Your task to perform on an android device: toggle translation in the chrome app Image 0: 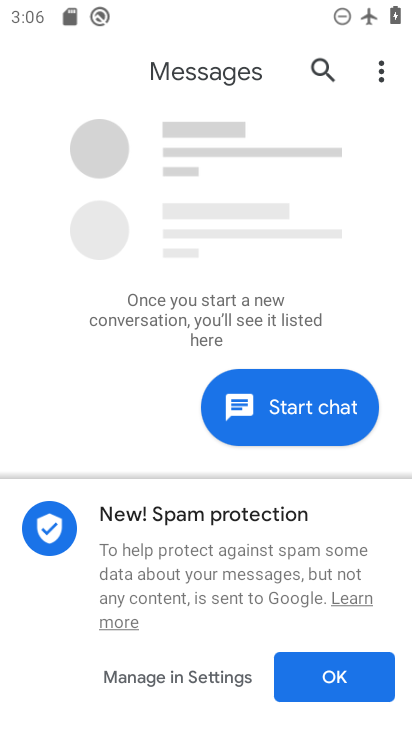
Step 0: press home button
Your task to perform on an android device: toggle translation in the chrome app Image 1: 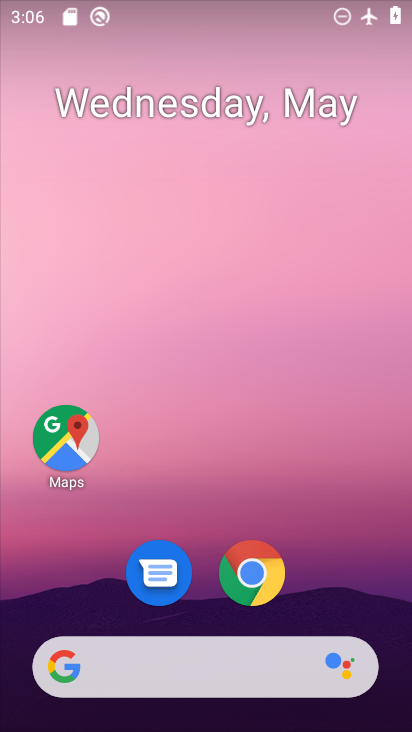
Step 1: click (256, 569)
Your task to perform on an android device: toggle translation in the chrome app Image 2: 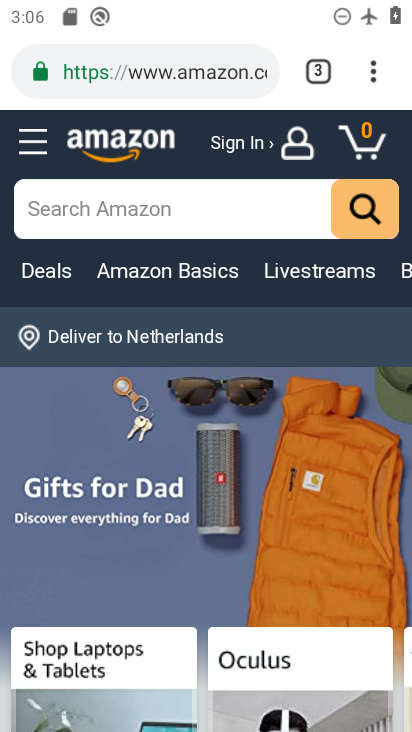
Step 2: click (381, 74)
Your task to perform on an android device: toggle translation in the chrome app Image 3: 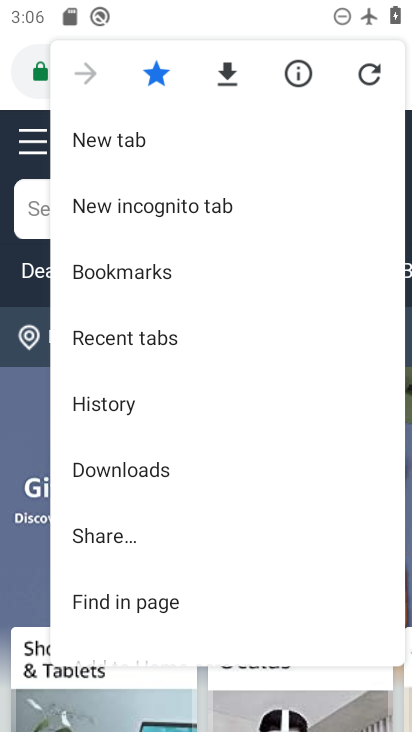
Step 3: drag from (231, 569) to (244, 266)
Your task to perform on an android device: toggle translation in the chrome app Image 4: 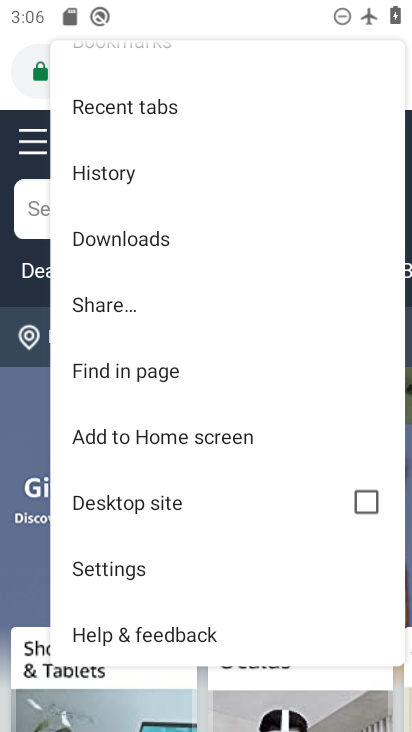
Step 4: click (173, 572)
Your task to perform on an android device: toggle translation in the chrome app Image 5: 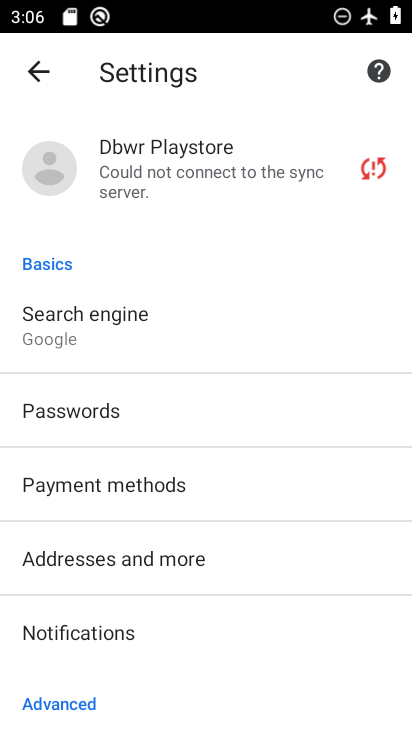
Step 5: drag from (179, 690) to (210, 329)
Your task to perform on an android device: toggle translation in the chrome app Image 6: 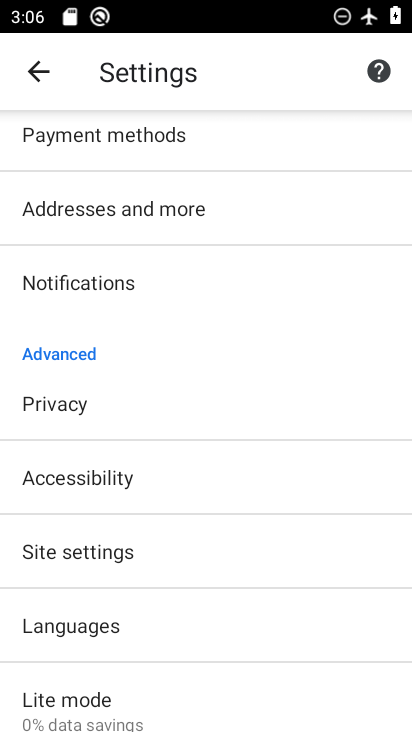
Step 6: click (117, 619)
Your task to perform on an android device: toggle translation in the chrome app Image 7: 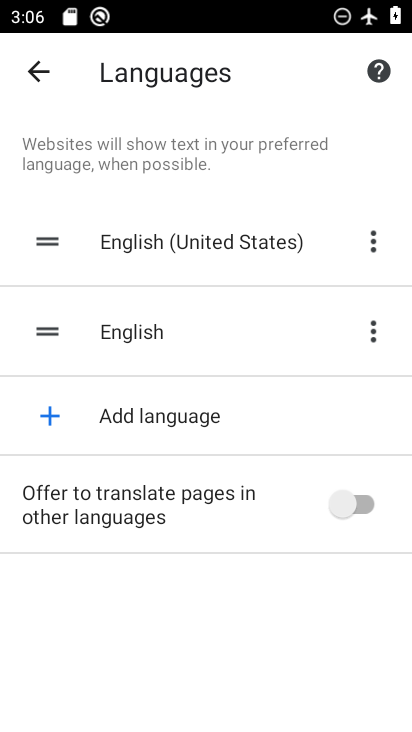
Step 7: click (351, 510)
Your task to perform on an android device: toggle translation in the chrome app Image 8: 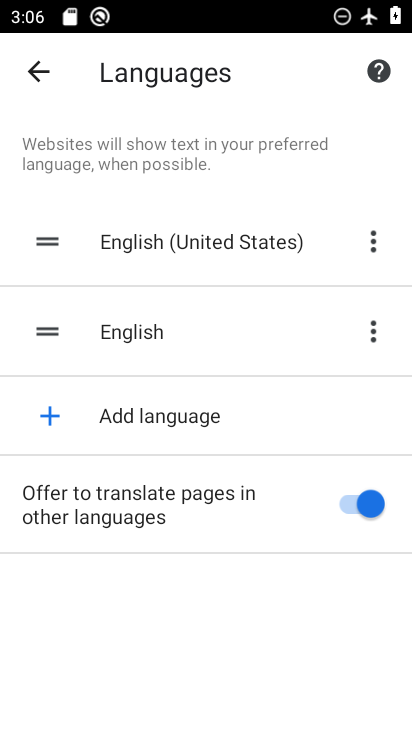
Step 8: task complete